Your task to perform on an android device: Open battery settings Image 0: 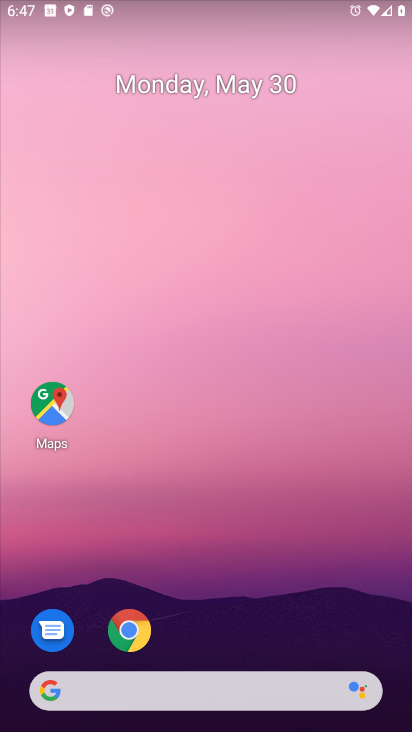
Step 0: drag from (337, 634) to (311, 12)
Your task to perform on an android device: Open battery settings Image 1: 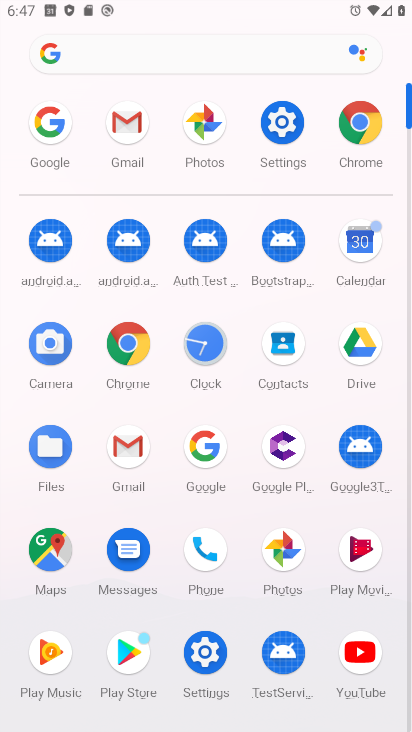
Step 1: click (295, 96)
Your task to perform on an android device: Open battery settings Image 2: 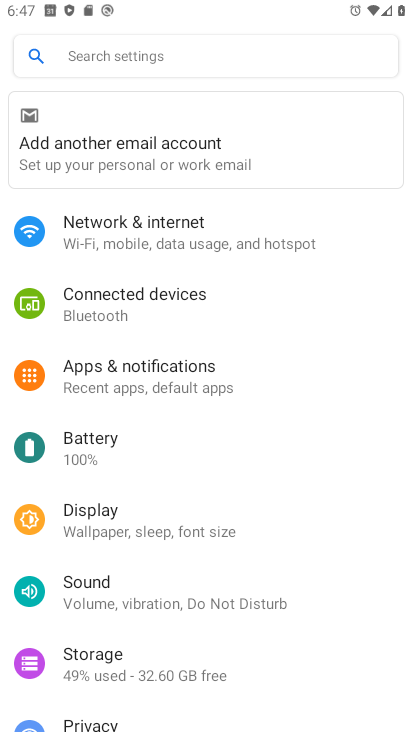
Step 2: click (118, 445)
Your task to perform on an android device: Open battery settings Image 3: 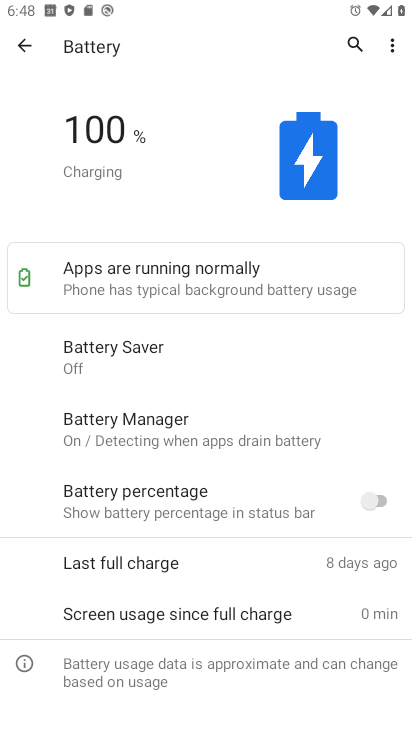
Step 3: task complete